Your task to perform on an android device: Go to battery settings Image 0: 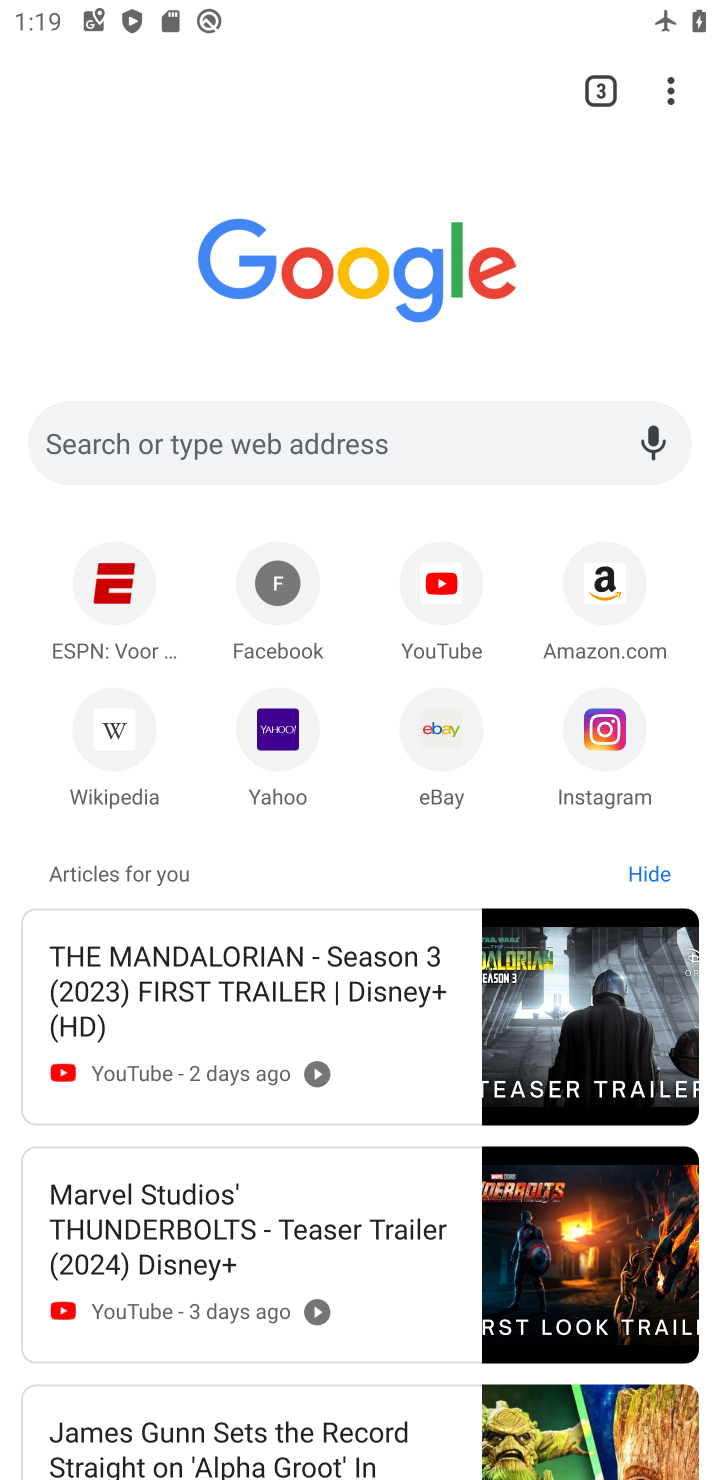
Step 0: press home button
Your task to perform on an android device: Go to battery settings Image 1: 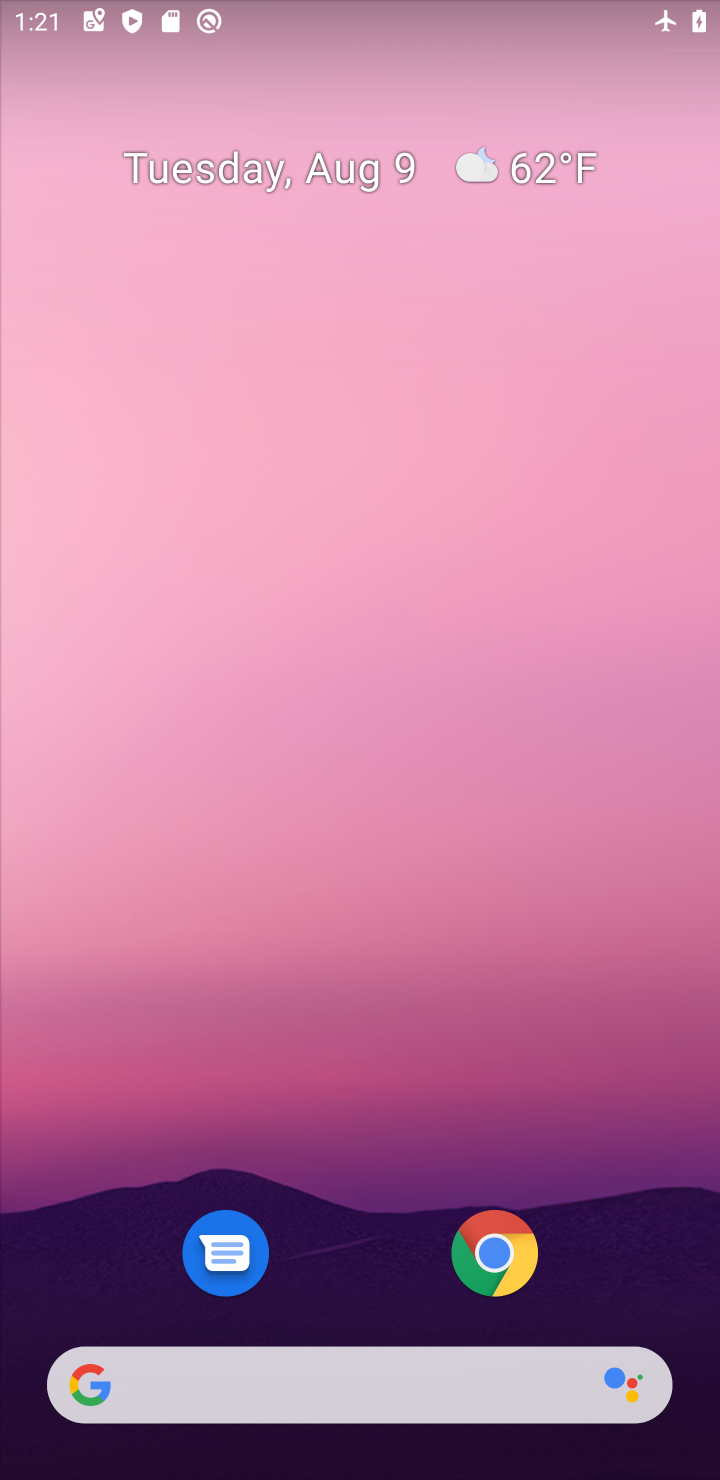
Step 1: drag from (665, 1088) to (454, 61)
Your task to perform on an android device: Go to battery settings Image 2: 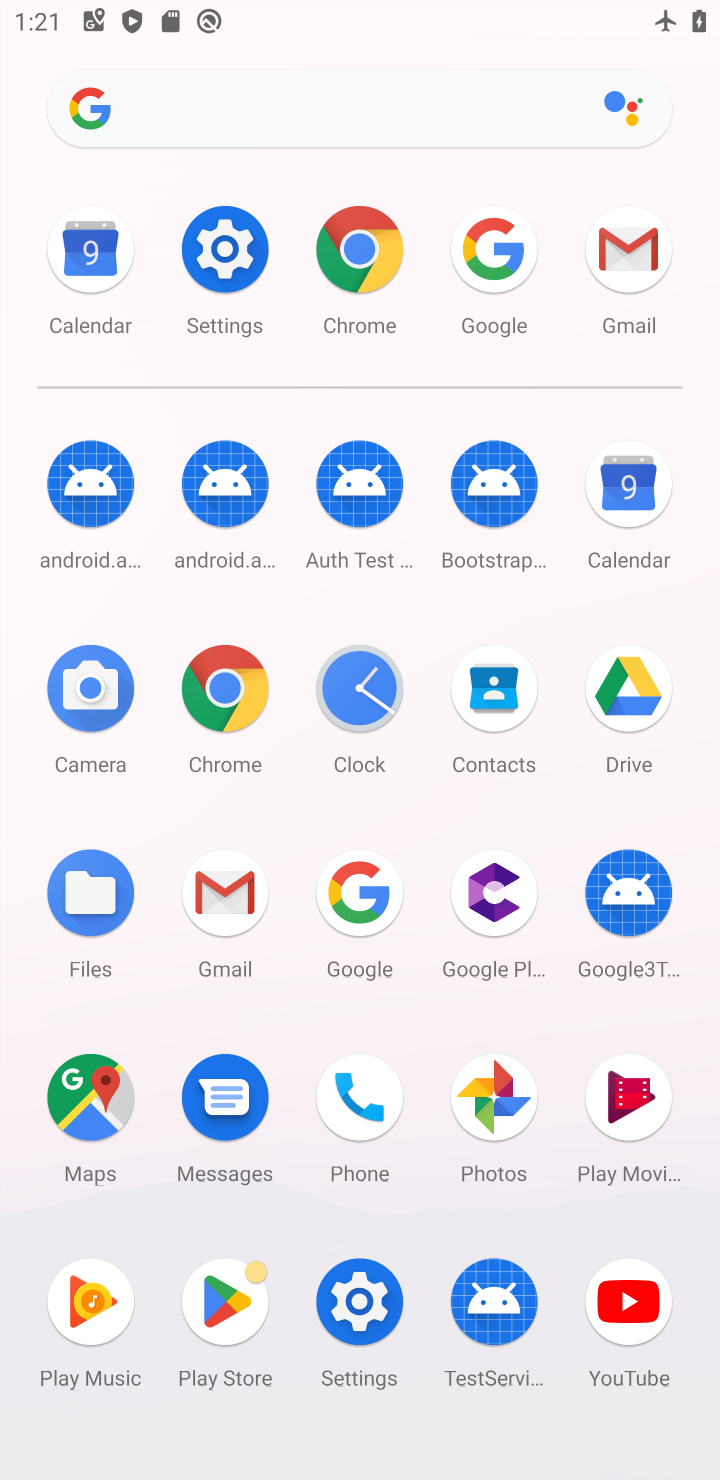
Step 2: click (376, 1303)
Your task to perform on an android device: Go to battery settings Image 3: 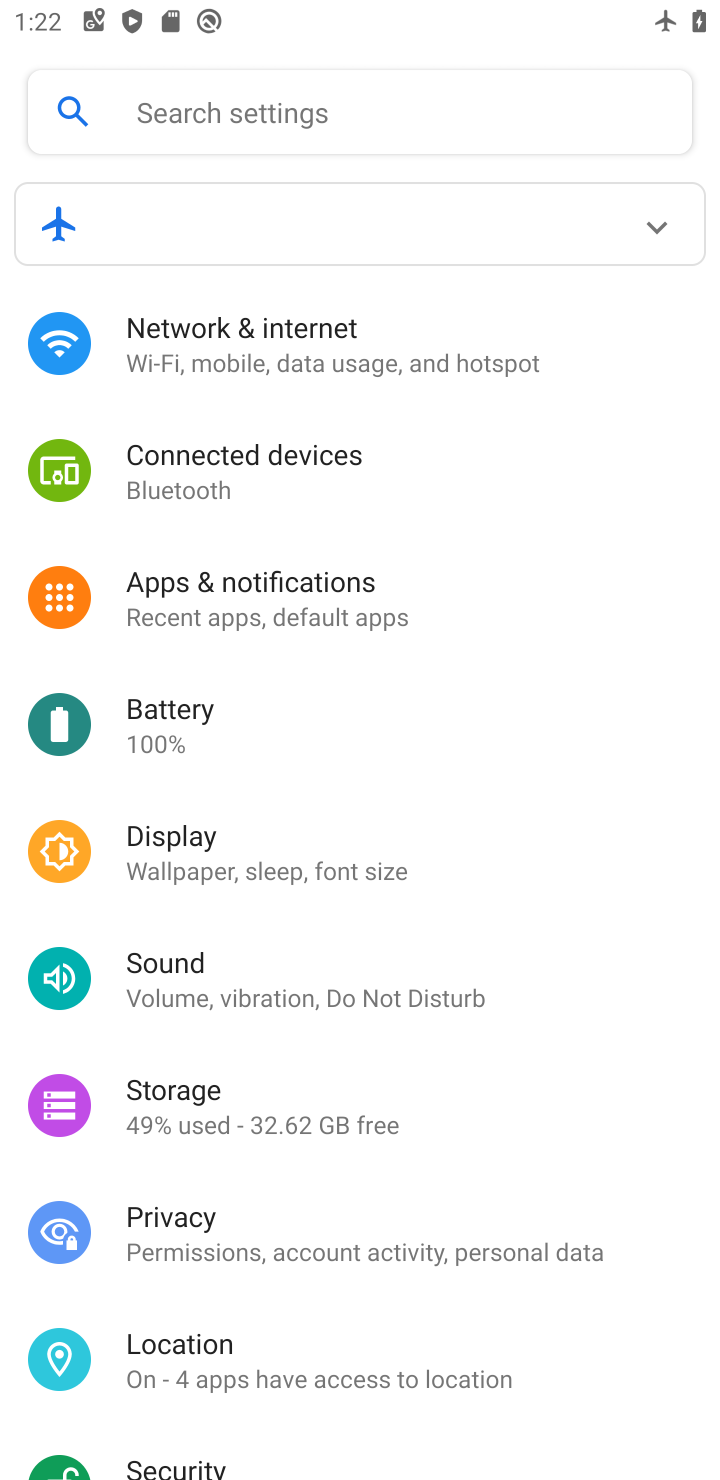
Step 3: click (185, 755)
Your task to perform on an android device: Go to battery settings Image 4: 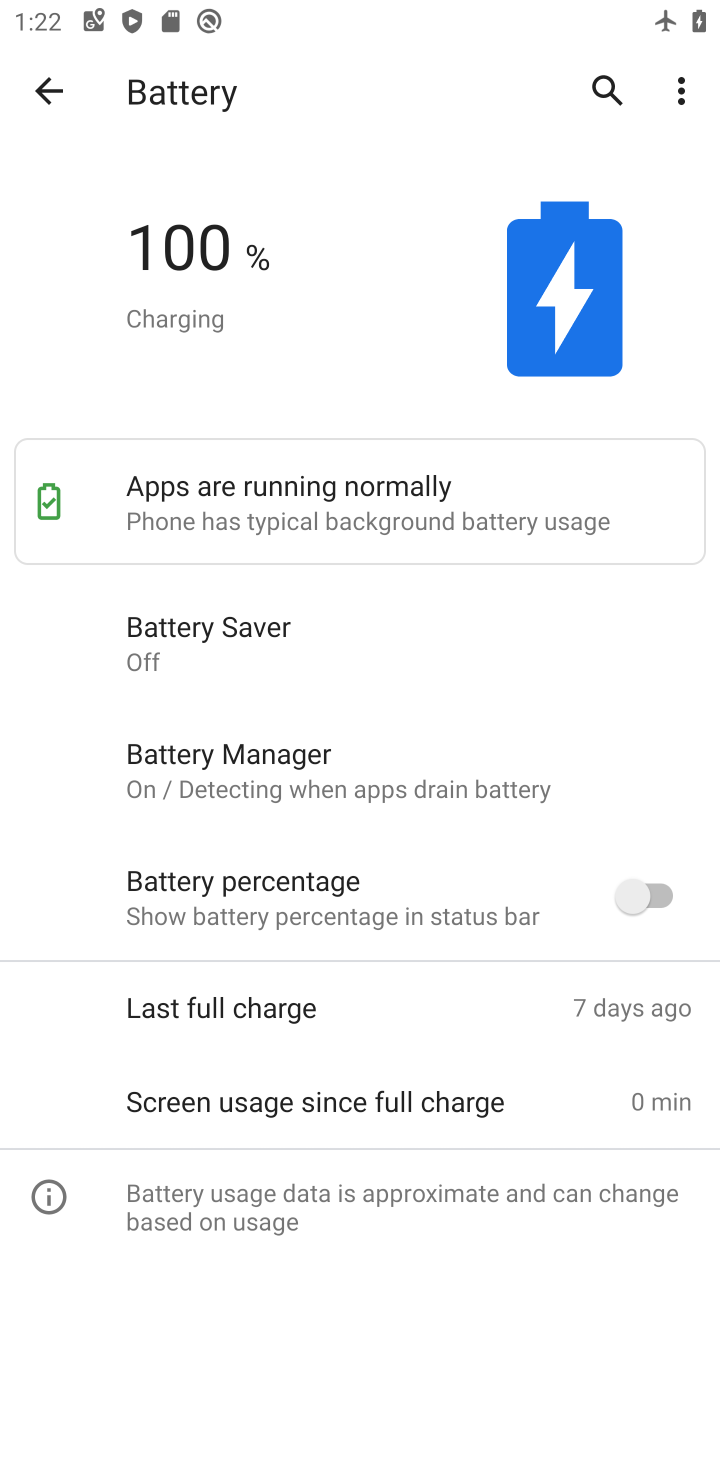
Step 4: task complete